Your task to perform on an android device: Go to calendar. Show me events next week Image 0: 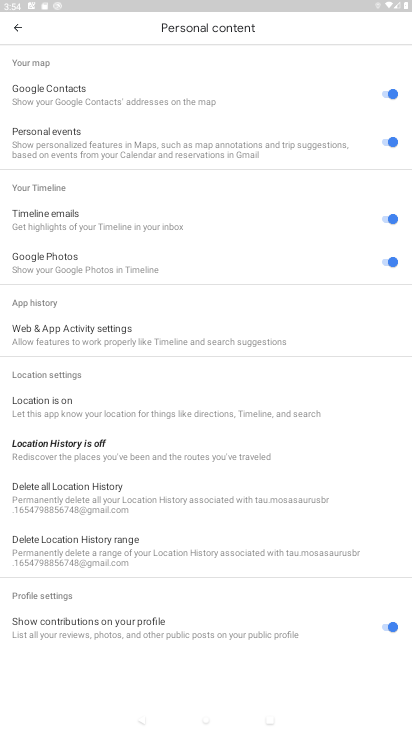
Step 0: press home button
Your task to perform on an android device: Go to calendar. Show me events next week Image 1: 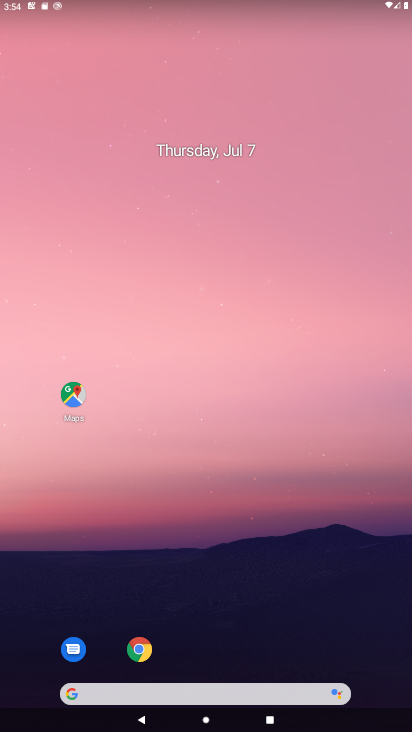
Step 1: drag from (373, 676) to (330, 223)
Your task to perform on an android device: Go to calendar. Show me events next week Image 2: 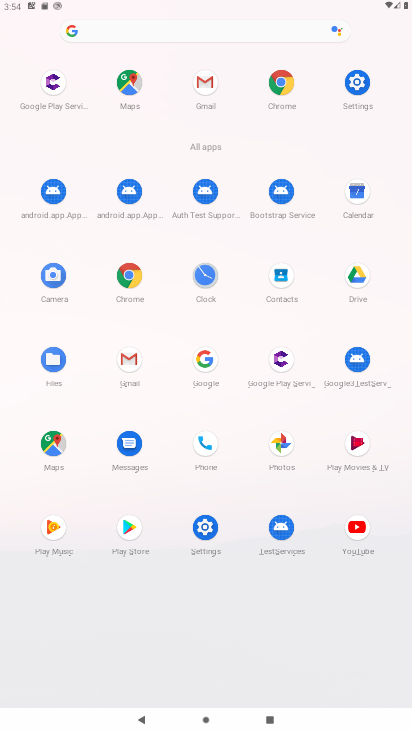
Step 2: click (356, 189)
Your task to perform on an android device: Go to calendar. Show me events next week Image 3: 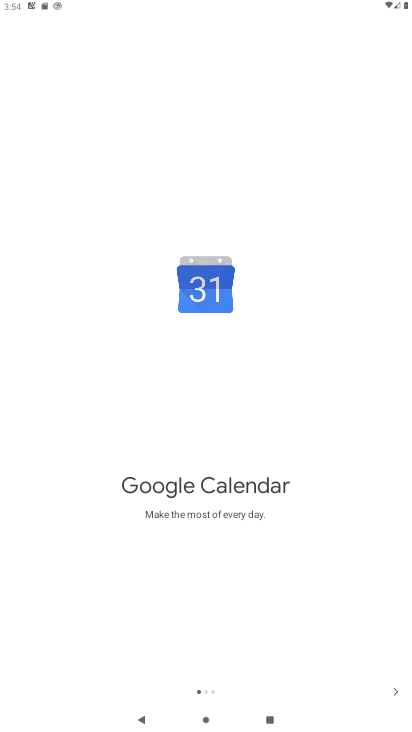
Step 3: click (394, 692)
Your task to perform on an android device: Go to calendar. Show me events next week Image 4: 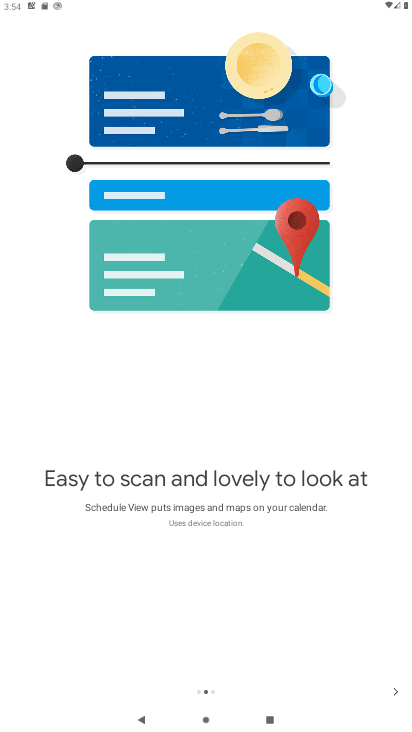
Step 4: click (394, 692)
Your task to perform on an android device: Go to calendar. Show me events next week Image 5: 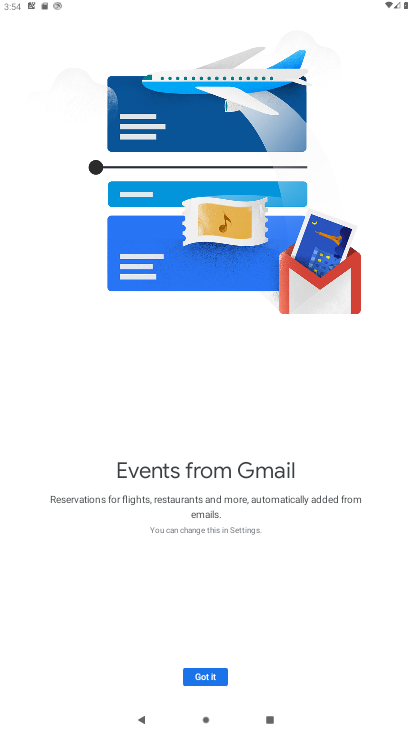
Step 5: click (200, 677)
Your task to perform on an android device: Go to calendar. Show me events next week Image 6: 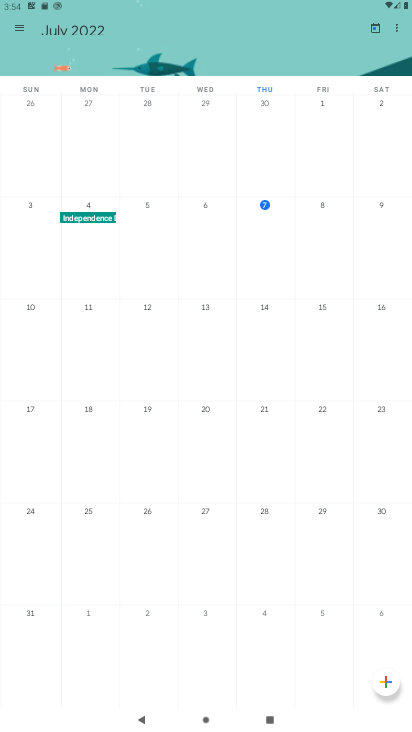
Step 6: click (16, 24)
Your task to perform on an android device: Go to calendar. Show me events next week Image 7: 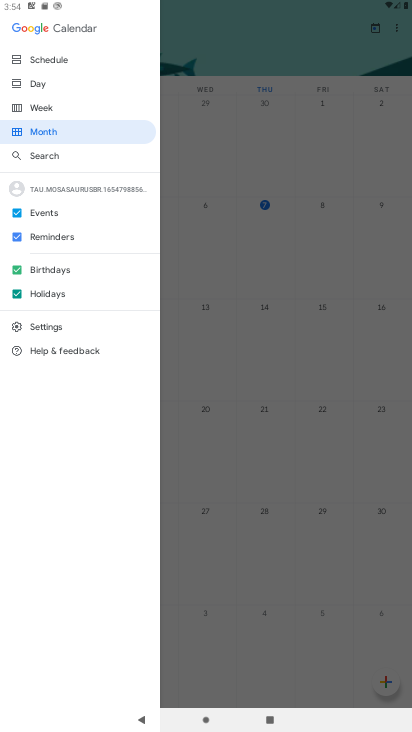
Step 7: click (39, 105)
Your task to perform on an android device: Go to calendar. Show me events next week Image 8: 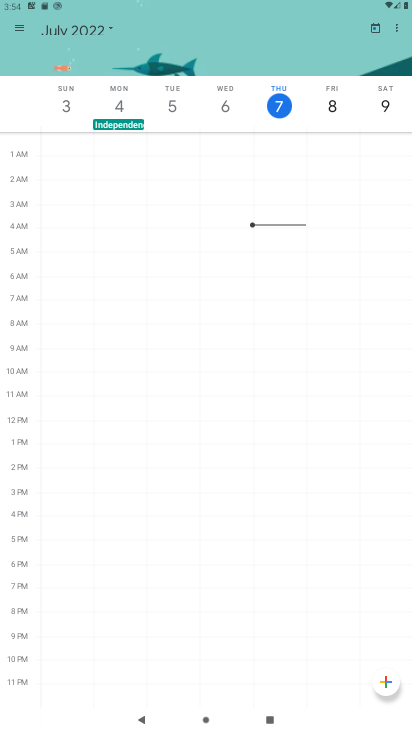
Step 8: click (108, 25)
Your task to perform on an android device: Go to calendar. Show me events next week Image 9: 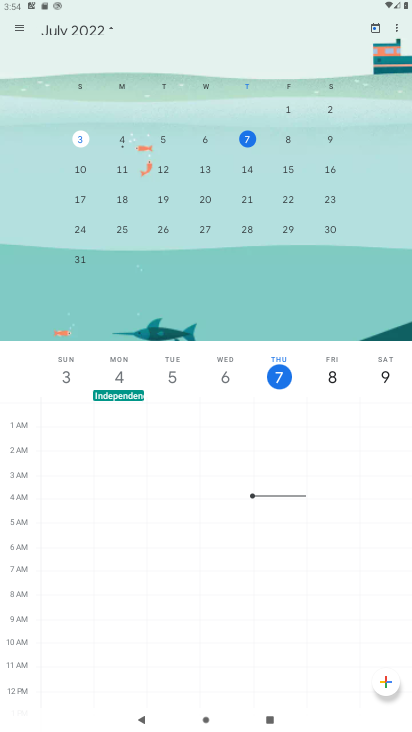
Step 9: click (81, 169)
Your task to perform on an android device: Go to calendar. Show me events next week Image 10: 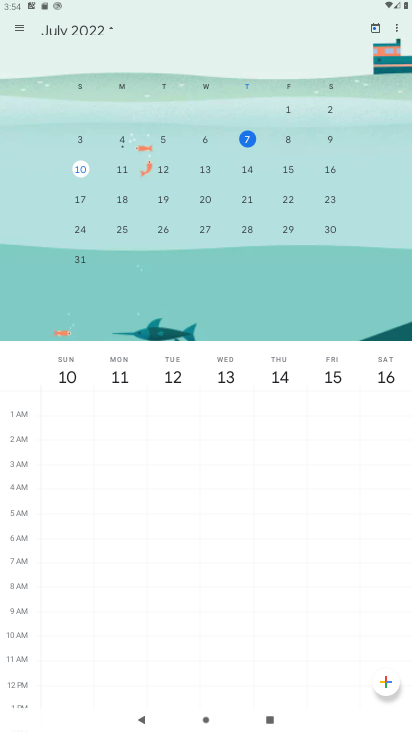
Step 10: task complete